Your task to perform on an android device: change keyboard looks Image 0: 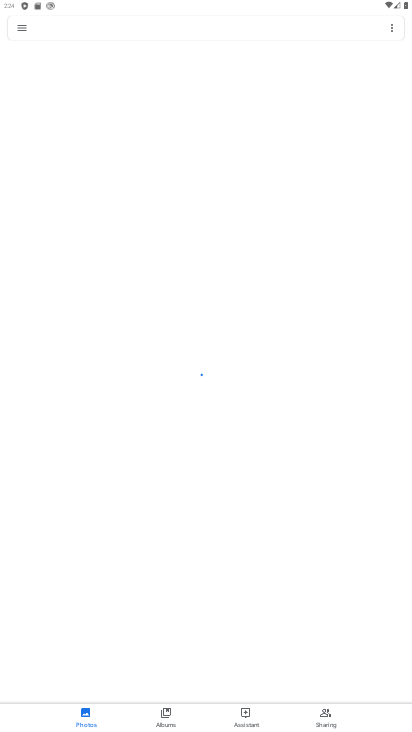
Step 0: press home button
Your task to perform on an android device: change keyboard looks Image 1: 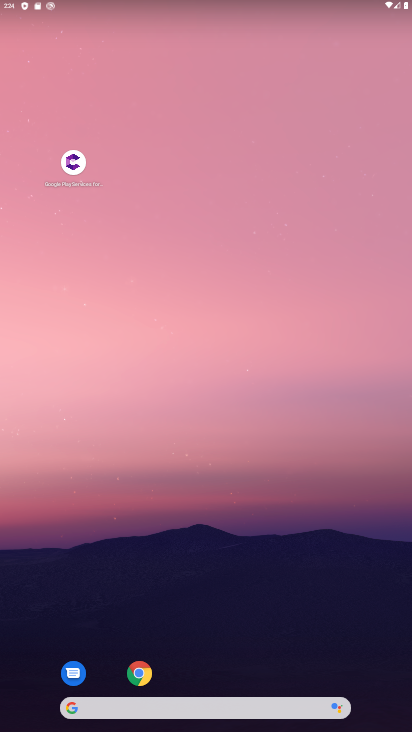
Step 1: drag from (232, 661) to (210, 25)
Your task to perform on an android device: change keyboard looks Image 2: 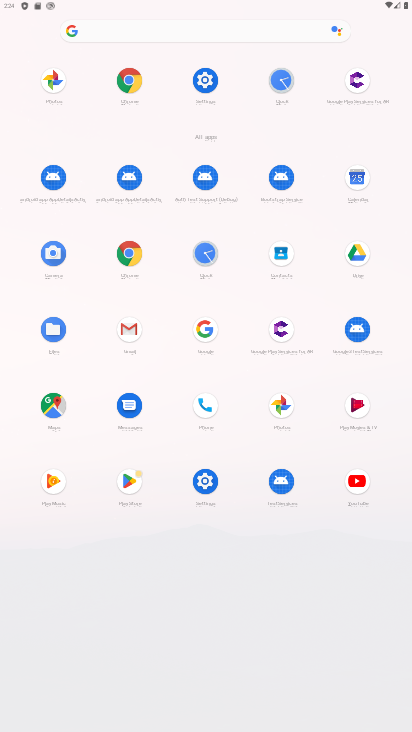
Step 2: click (207, 79)
Your task to perform on an android device: change keyboard looks Image 3: 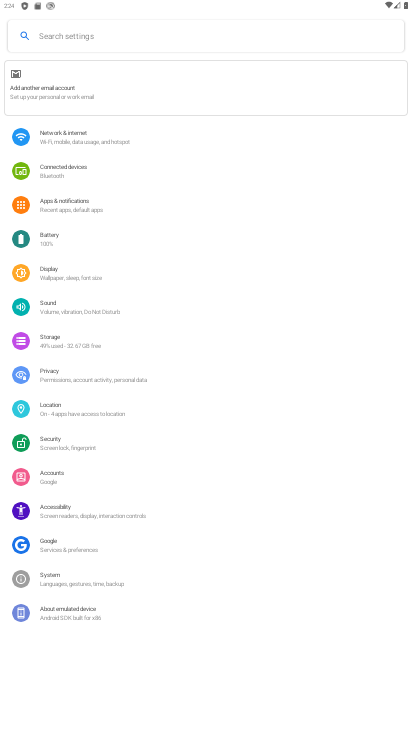
Step 3: click (98, 580)
Your task to perform on an android device: change keyboard looks Image 4: 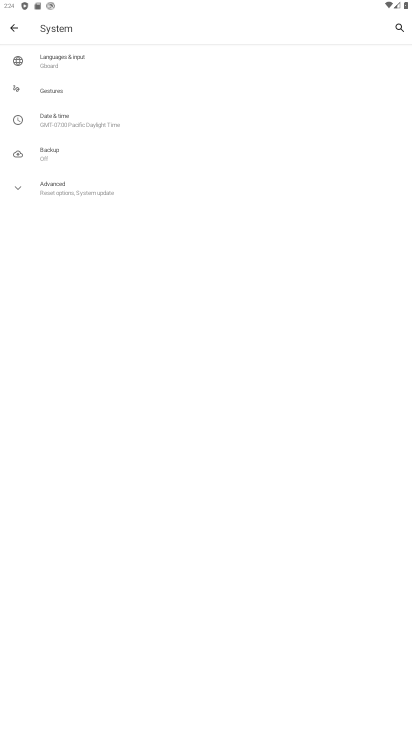
Step 4: click (245, 59)
Your task to perform on an android device: change keyboard looks Image 5: 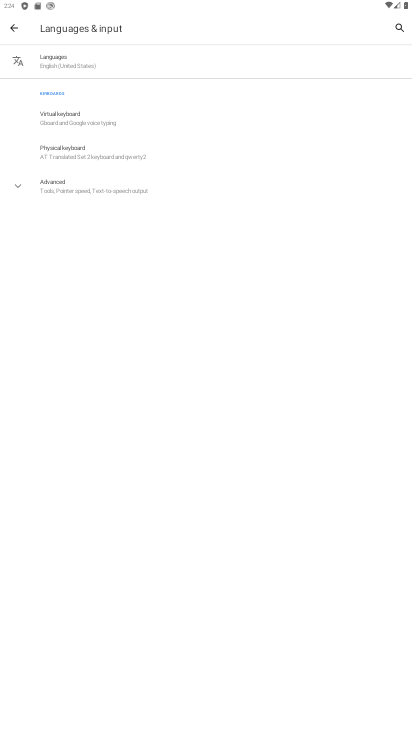
Step 5: click (162, 118)
Your task to perform on an android device: change keyboard looks Image 6: 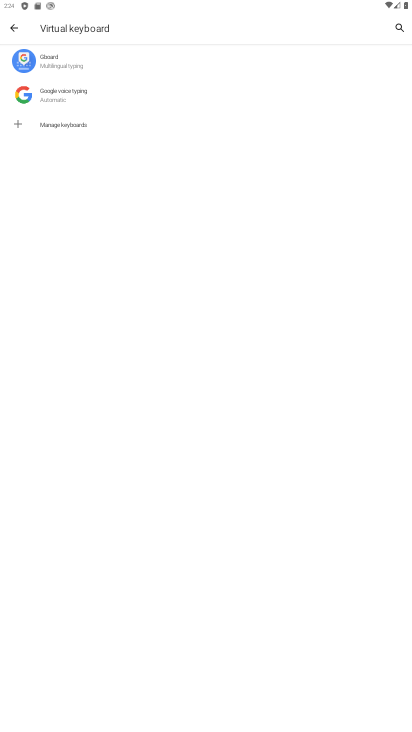
Step 6: click (158, 62)
Your task to perform on an android device: change keyboard looks Image 7: 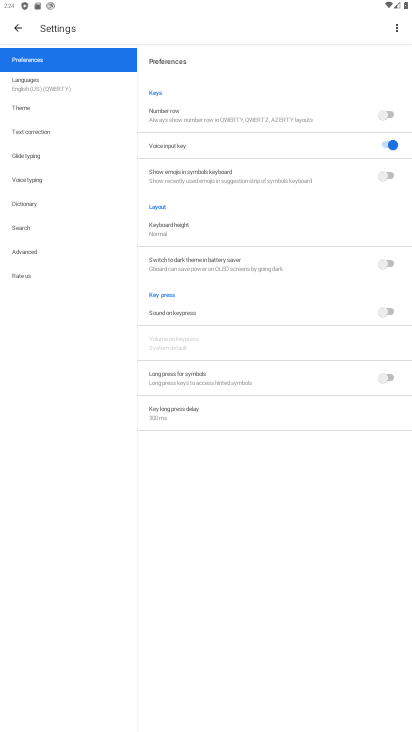
Step 7: click (44, 109)
Your task to perform on an android device: change keyboard looks Image 8: 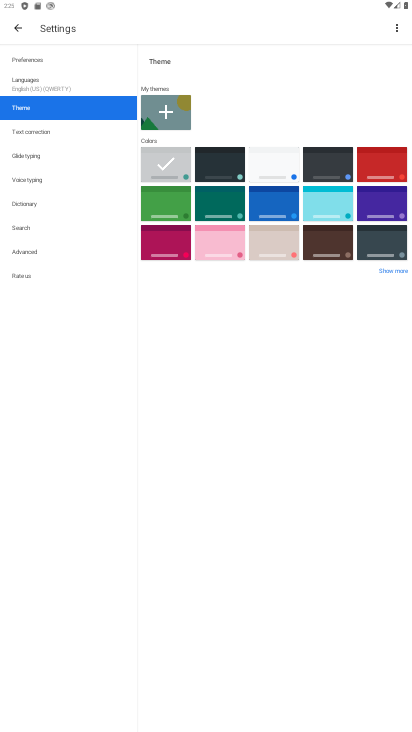
Step 8: click (208, 158)
Your task to perform on an android device: change keyboard looks Image 9: 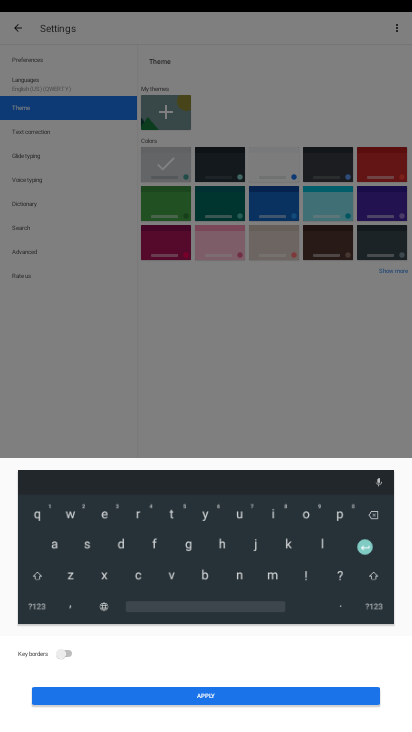
Step 9: click (317, 693)
Your task to perform on an android device: change keyboard looks Image 10: 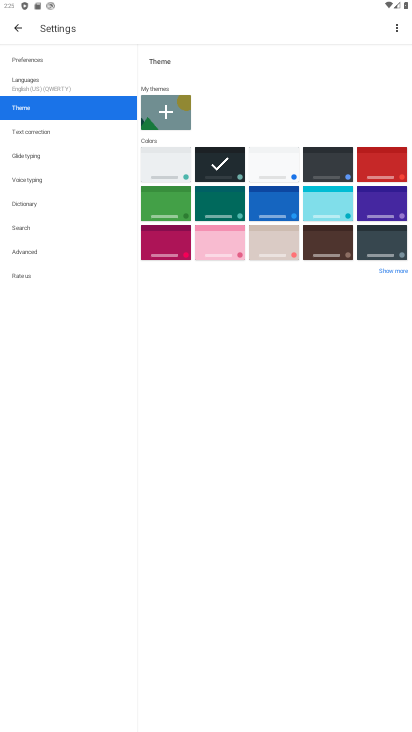
Step 10: task complete